Your task to perform on an android device: change timer sound Image 0: 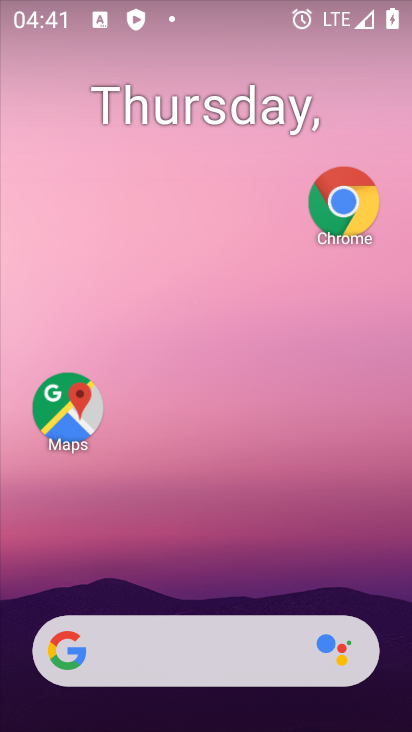
Step 0: drag from (124, 649) to (113, 54)
Your task to perform on an android device: change timer sound Image 1: 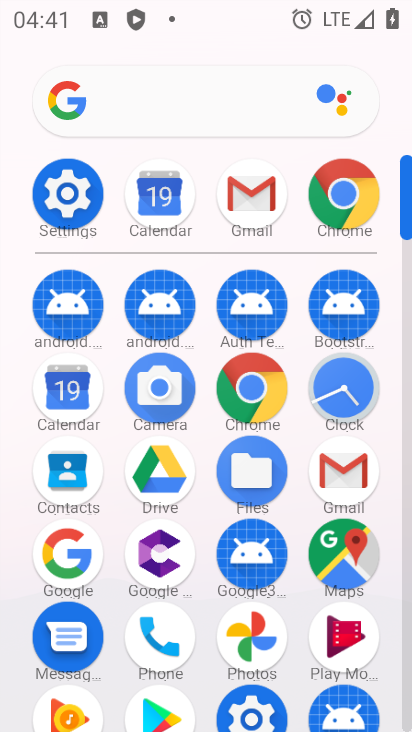
Step 1: click (339, 374)
Your task to perform on an android device: change timer sound Image 2: 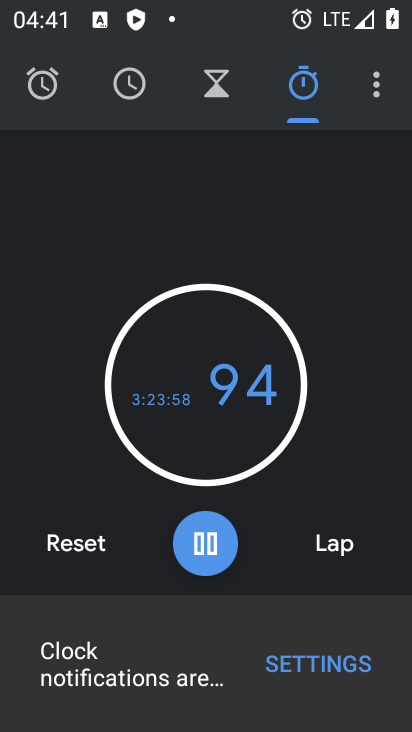
Step 2: click (371, 93)
Your task to perform on an android device: change timer sound Image 3: 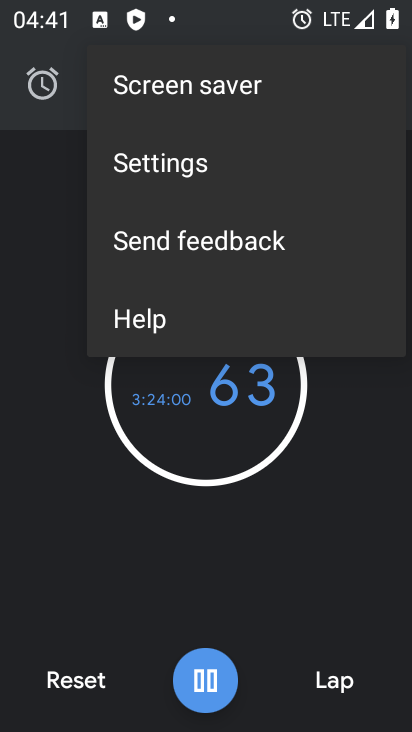
Step 3: click (209, 172)
Your task to perform on an android device: change timer sound Image 4: 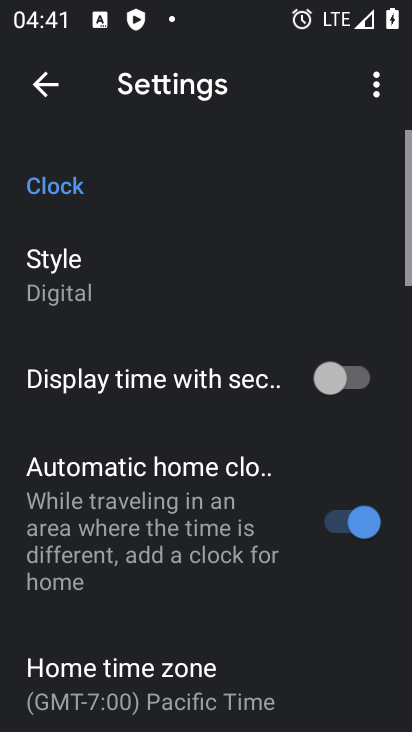
Step 4: drag from (196, 653) to (193, 13)
Your task to perform on an android device: change timer sound Image 5: 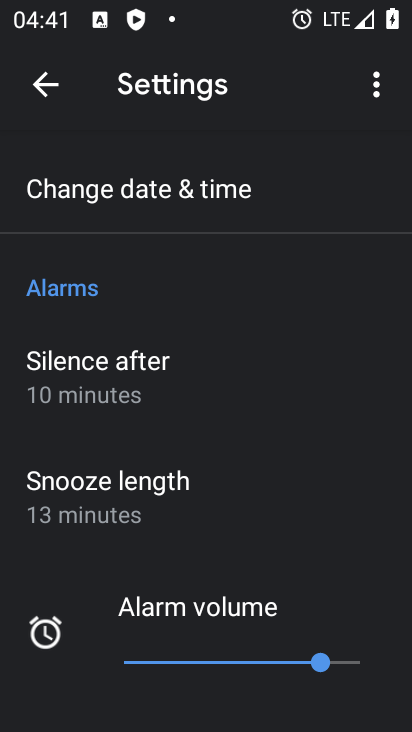
Step 5: drag from (184, 547) to (144, 12)
Your task to perform on an android device: change timer sound Image 6: 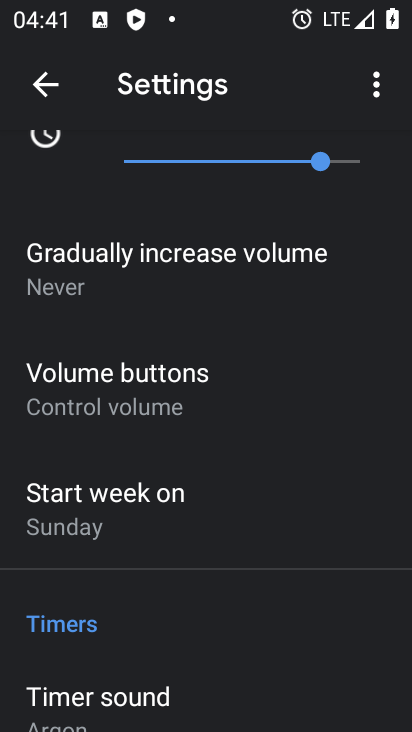
Step 6: drag from (191, 576) to (179, 205)
Your task to perform on an android device: change timer sound Image 7: 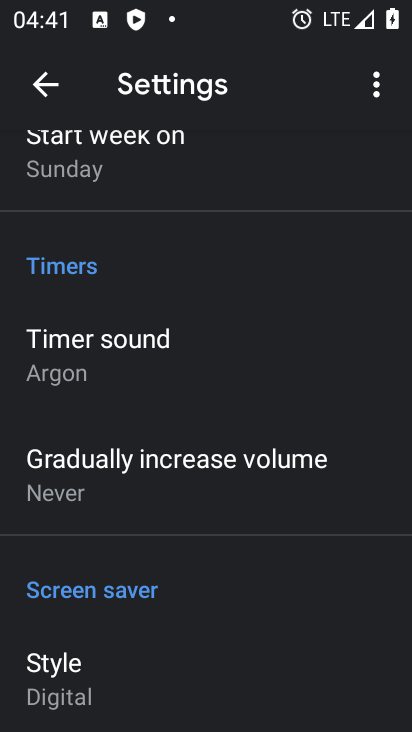
Step 7: click (165, 380)
Your task to perform on an android device: change timer sound Image 8: 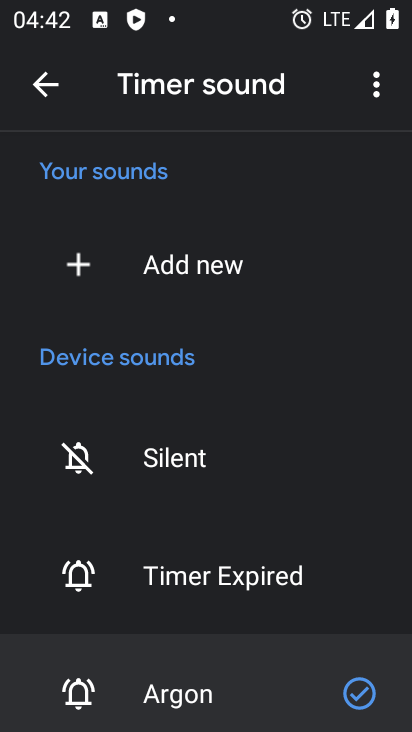
Step 8: click (162, 569)
Your task to perform on an android device: change timer sound Image 9: 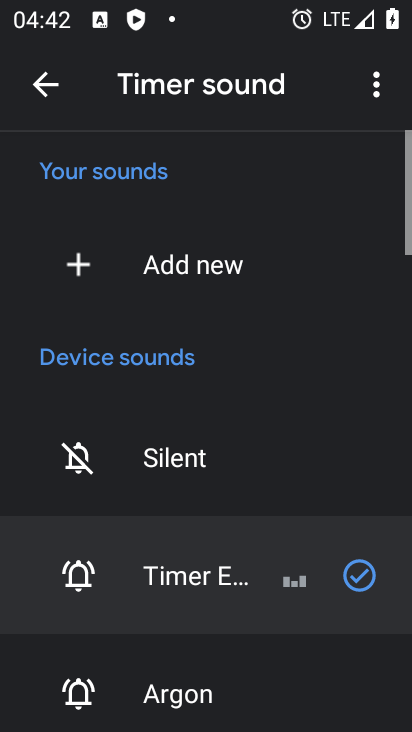
Step 9: task complete